Your task to perform on an android device: turn off priority inbox in the gmail app Image 0: 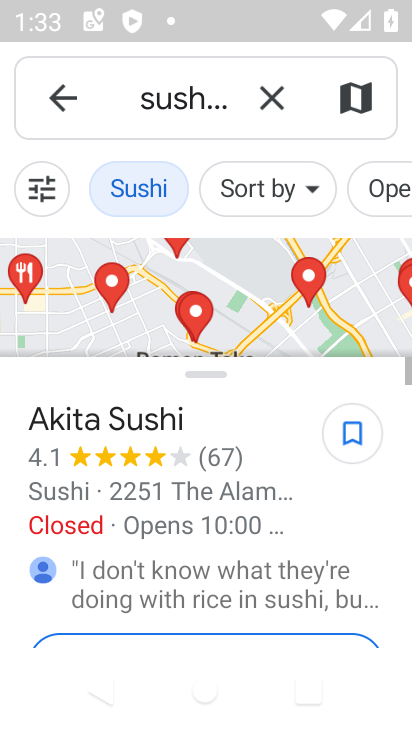
Step 0: press home button
Your task to perform on an android device: turn off priority inbox in the gmail app Image 1: 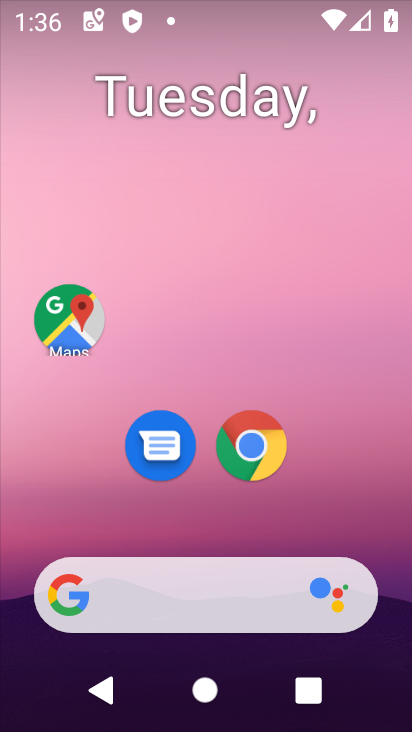
Step 1: drag from (297, 411) to (215, 67)
Your task to perform on an android device: turn off priority inbox in the gmail app Image 2: 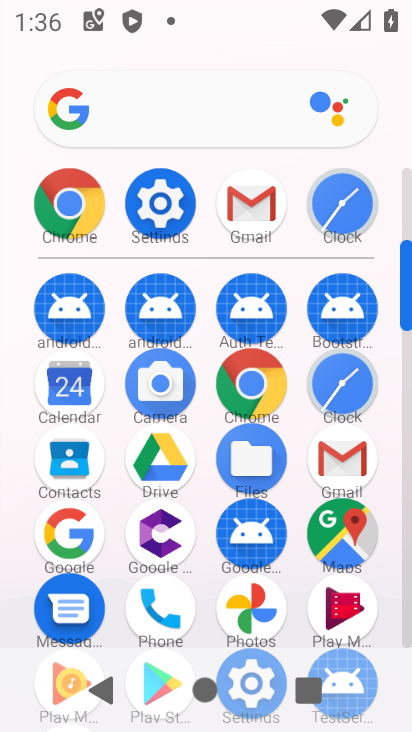
Step 2: click (287, 222)
Your task to perform on an android device: turn off priority inbox in the gmail app Image 3: 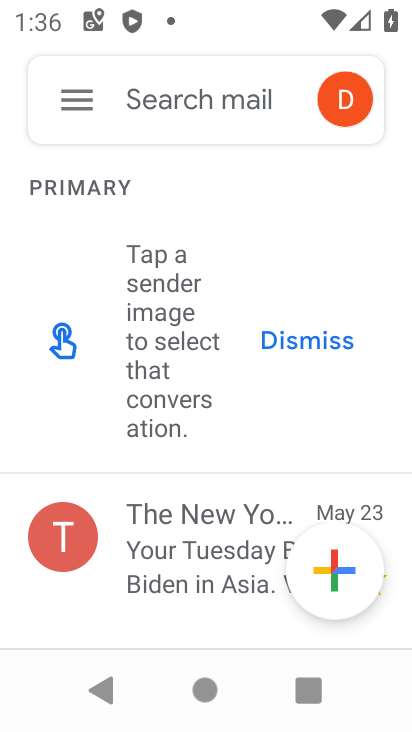
Step 3: click (60, 110)
Your task to perform on an android device: turn off priority inbox in the gmail app Image 4: 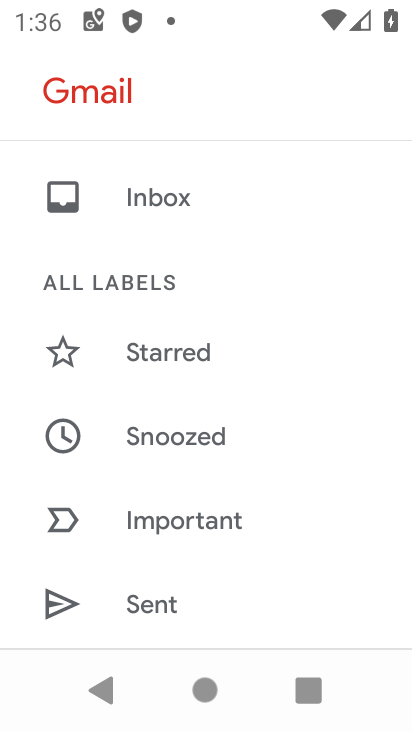
Step 4: drag from (207, 468) to (137, 71)
Your task to perform on an android device: turn off priority inbox in the gmail app Image 5: 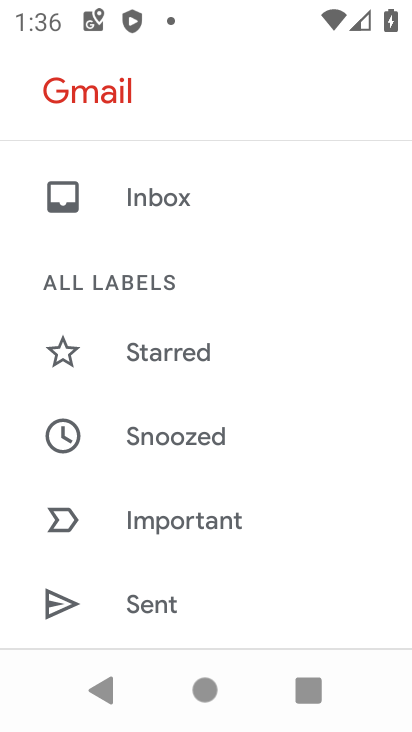
Step 5: drag from (247, 553) to (231, 225)
Your task to perform on an android device: turn off priority inbox in the gmail app Image 6: 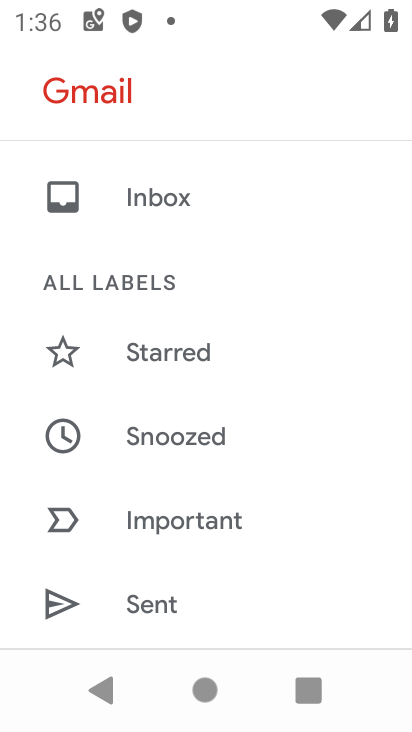
Step 6: drag from (243, 584) to (302, 280)
Your task to perform on an android device: turn off priority inbox in the gmail app Image 7: 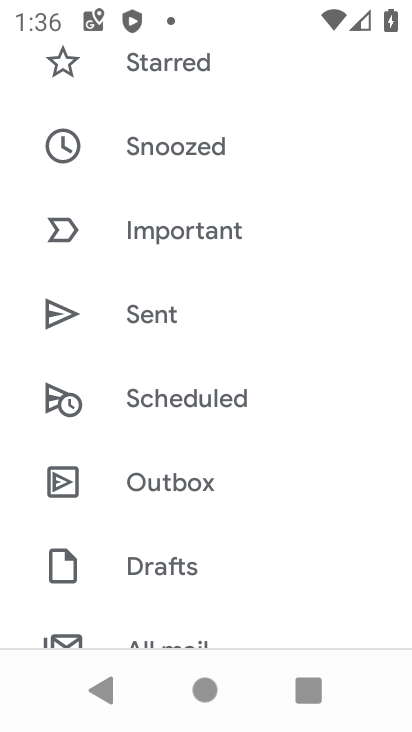
Step 7: drag from (199, 559) to (229, 174)
Your task to perform on an android device: turn off priority inbox in the gmail app Image 8: 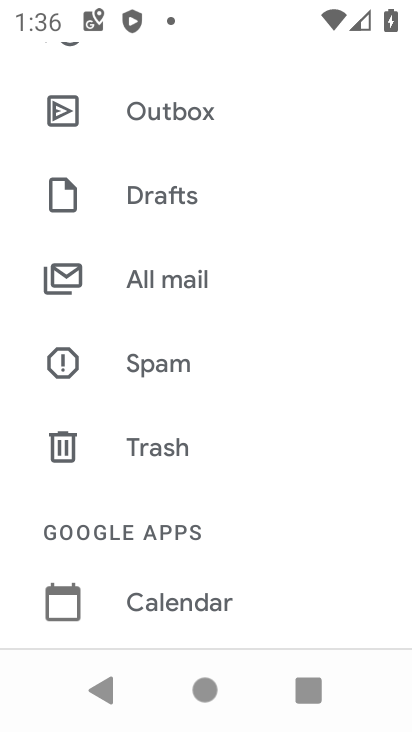
Step 8: drag from (200, 569) to (233, 123)
Your task to perform on an android device: turn off priority inbox in the gmail app Image 9: 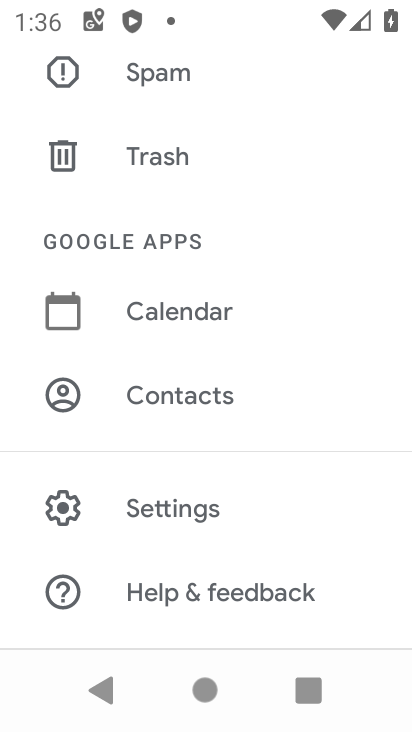
Step 9: click (203, 484)
Your task to perform on an android device: turn off priority inbox in the gmail app Image 10: 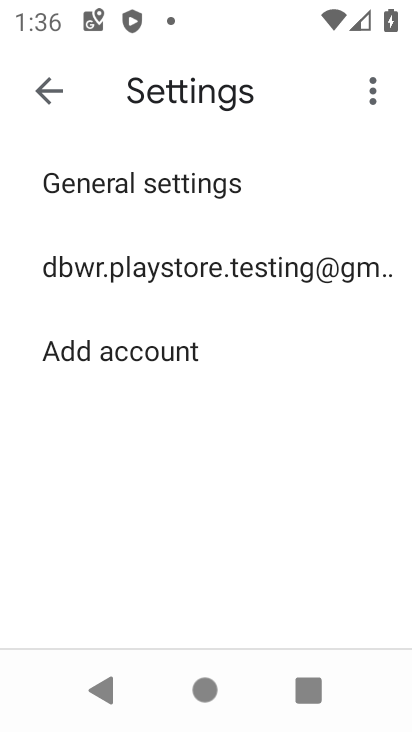
Step 10: click (117, 279)
Your task to perform on an android device: turn off priority inbox in the gmail app Image 11: 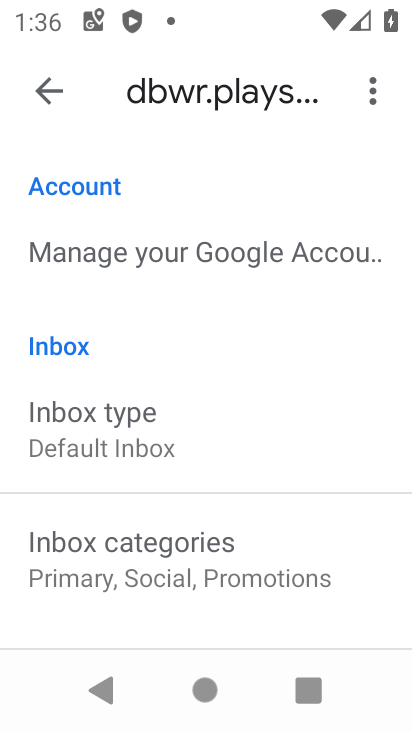
Step 11: click (112, 439)
Your task to perform on an android device: turn off priority inbox in the gmail app Image 12: 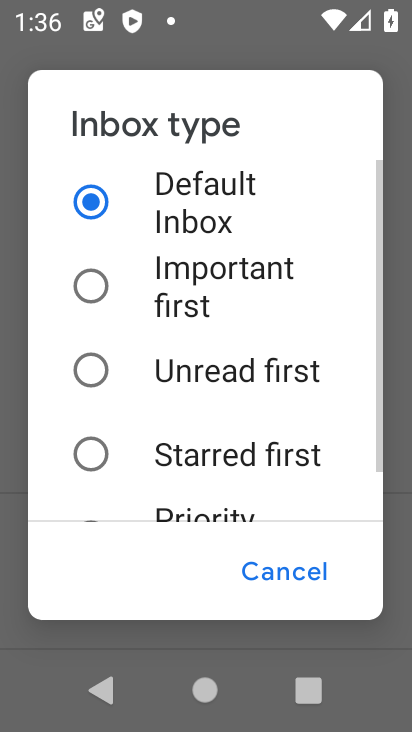
Step 12: task complete